Your task to perform on an android device: search for starred emails in the gmail app Image 0: 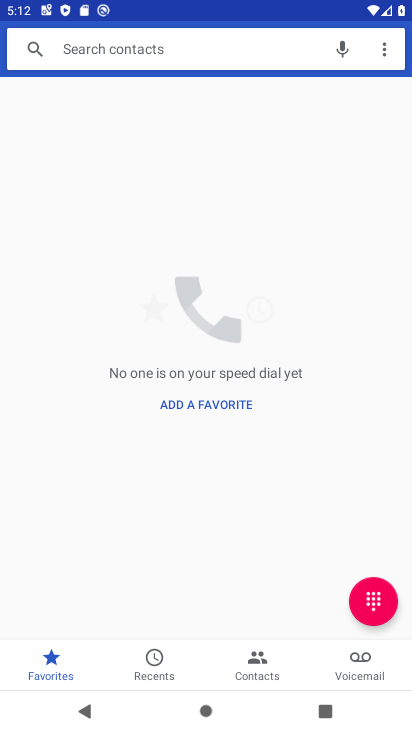
Step 0: press back button
Your task to perform on an android device: search for starred emails in the gmail app Image 1: 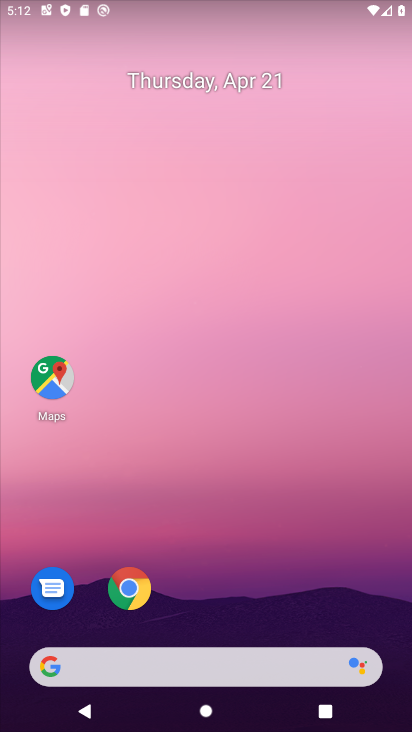
Step 1: drag from (158, 438) to (223, 32)
Your task to perform on an android device: search for starred emails in the gmail app Image 2: 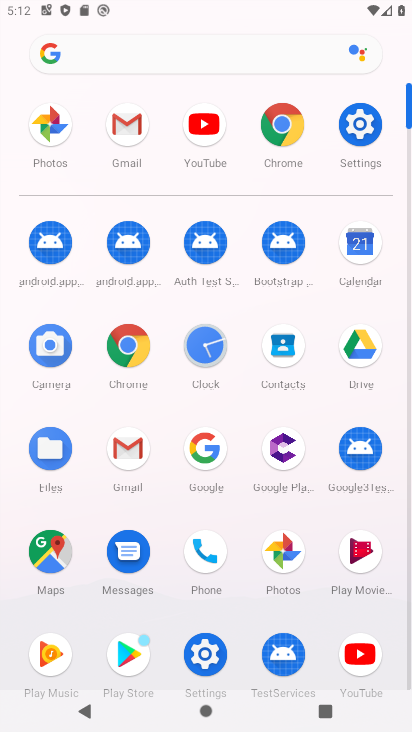
Step 2: click (127, 124)
Your task to perform on an android device: search for starred emails in the gmail app Image 3: 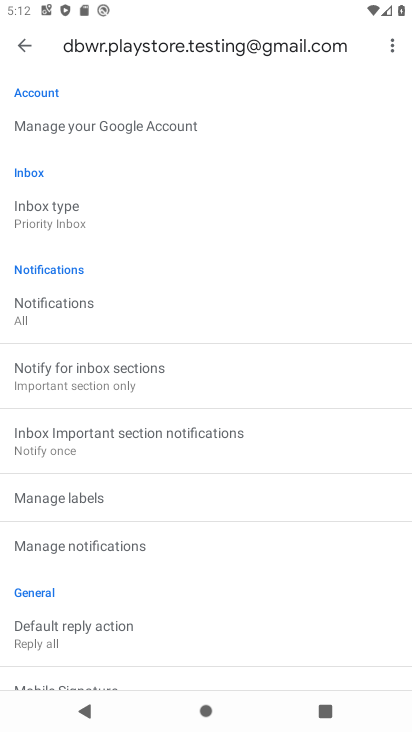
Step 3: click (20, 50)
Your task to perform on an android device: search for starred emails in the gmail app Image 4: 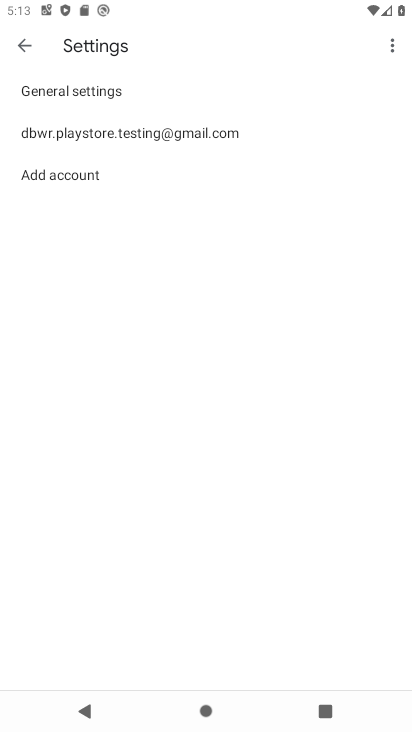
Step 4: click (34, 46)
Your task to perform on an android device: search for starred emails in the gmail app Image 5: 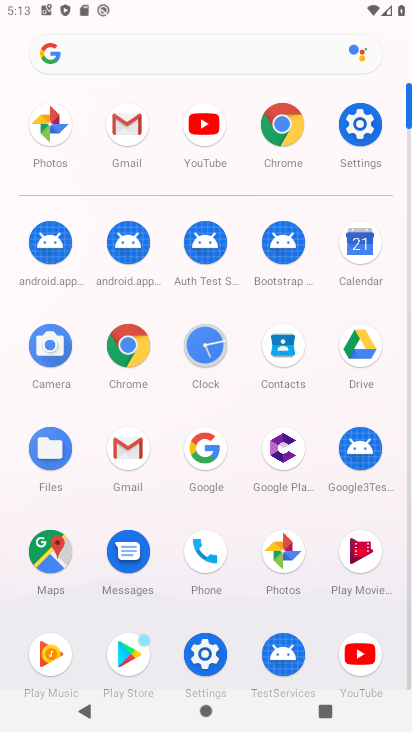
Step 5: click (118, 127)
Your task to perform on an android device: search for starred emails in the gmail app Image 6: 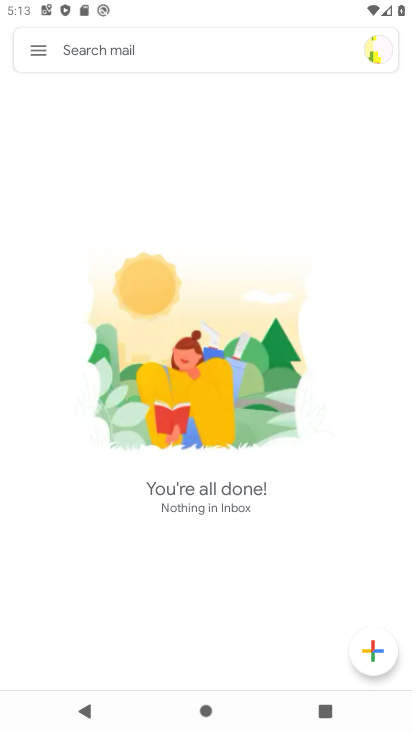
Step 6: click (37, 48)
Your task to perform on an android device: search for starred emails in the gmail app Image 7: 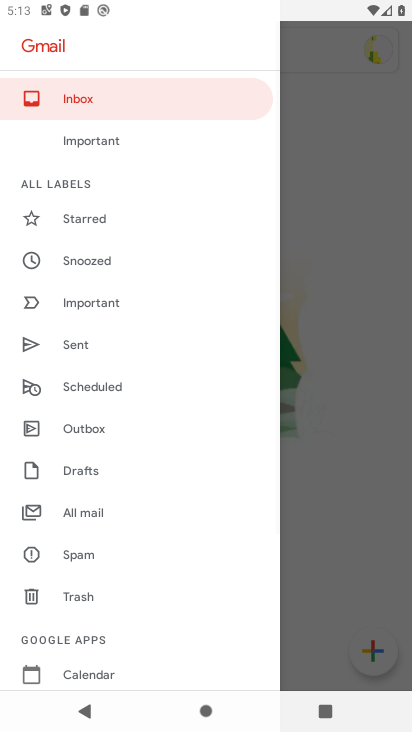
Step 7: click (96, 216)
Your task to perform on an android device: search for starred emails in the gmail app Image 8: 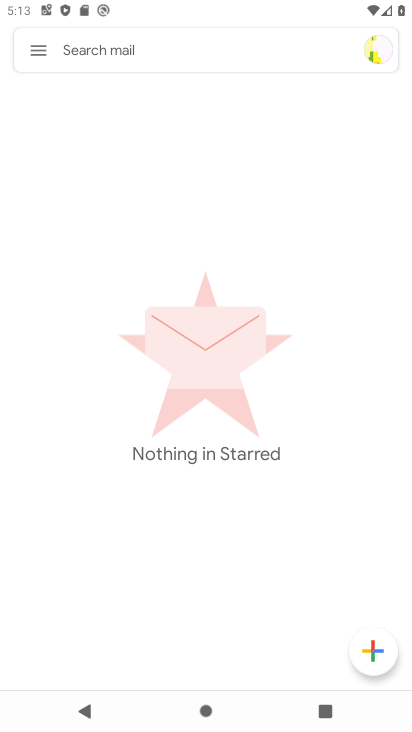
Step 8: task complete